Your task to perform on an android device: find photos in the google photos app Image 0: 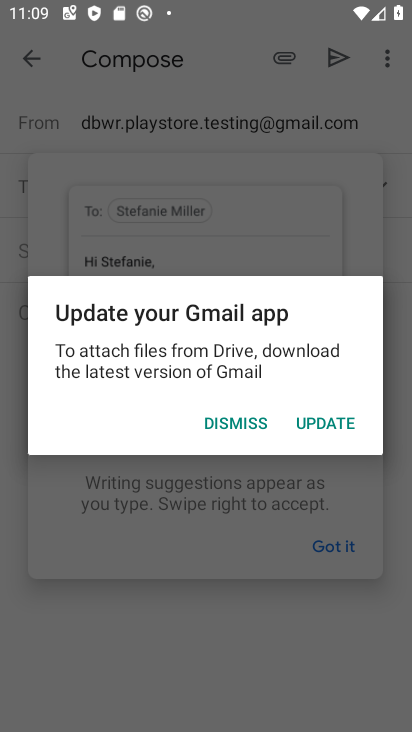
Step 0: press home button
Your task to perform on an android device: find photos in the google photos app Image 1: 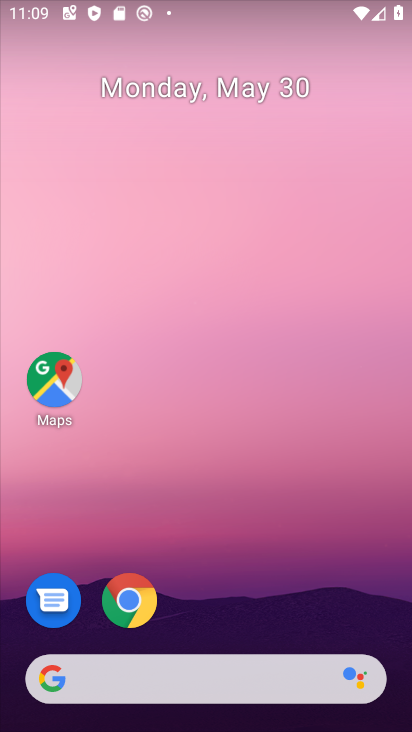
Step 1: drag from (230, 725) to (225, 110)
Your task to perform on an android device: find photos in the google photos app Image 2: 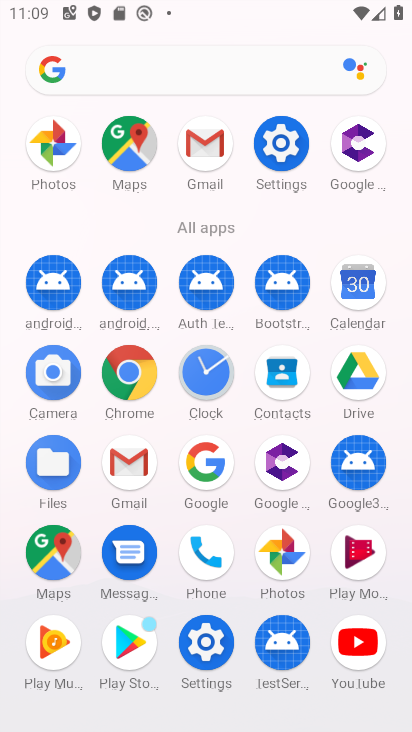
Step 2: click (283, 549)
Your task to perform on an android device: find photos in the google photos app Image 3: 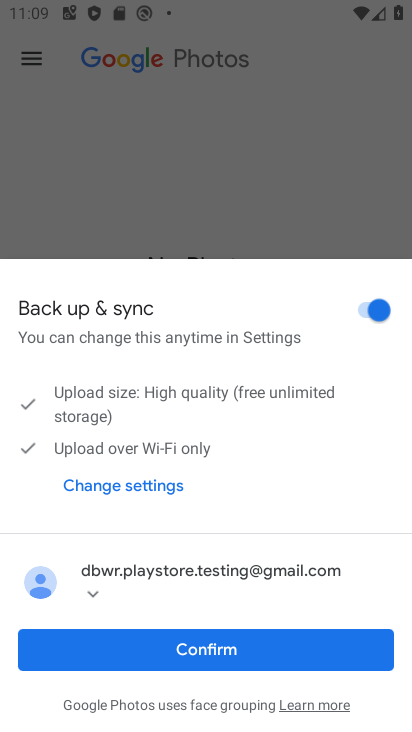
Step 3: click (193, 648)
Your task to perform on an android device: find photos in the google photos app Image 4: 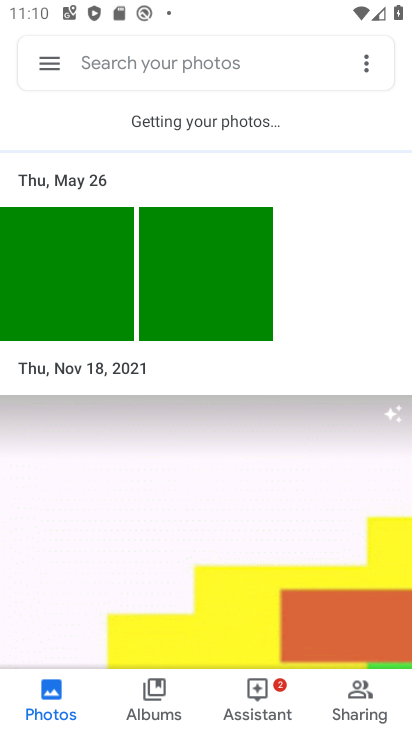
Step 4: click (89, 284)
Your task to perform on an android device: find photos in the google photos app Image 5: 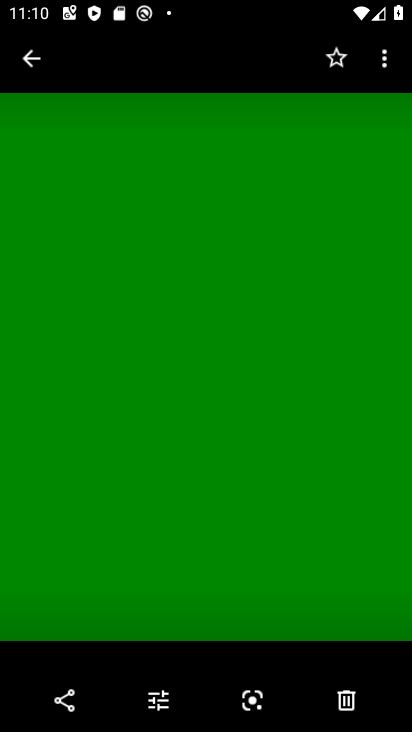
Step 5: task complete